Your task to perform on an android device: Open Youtube and go to "Your channel" Image 0: 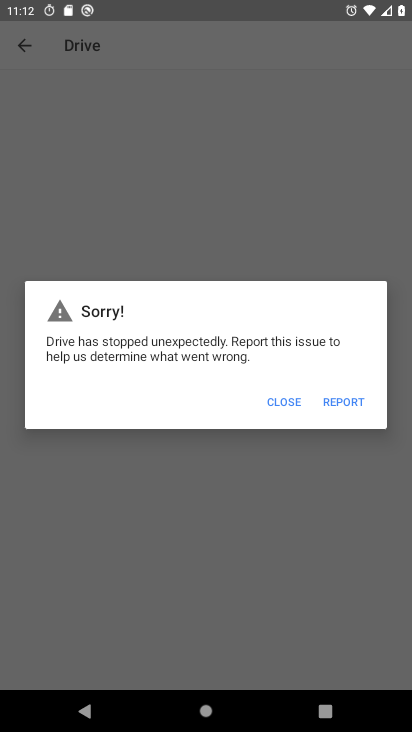
Step 0: click (283, 399)
Your task to perform on an android device: Open Youtube and go to "Your channel" Image 1: 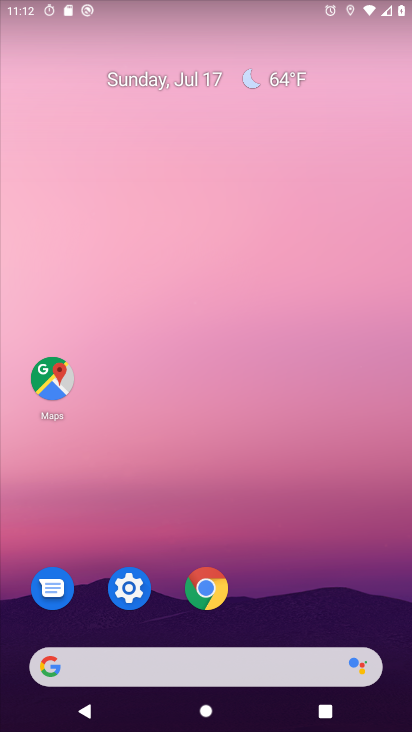
Step 1: drag from (274, 473) to (281, 2)
Your task to perform on an android device: Open Youtube and go to "Your channel" Image 2: 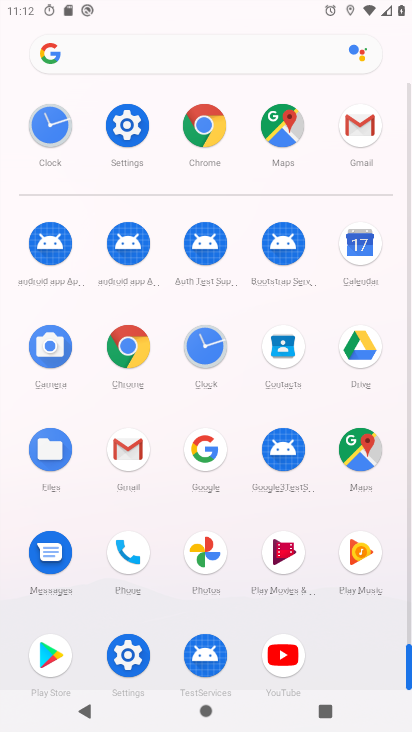
Step 2: click (278, 644)
Your task to perform on an android device: Open Youtube and go to "Your channel" Image 3: 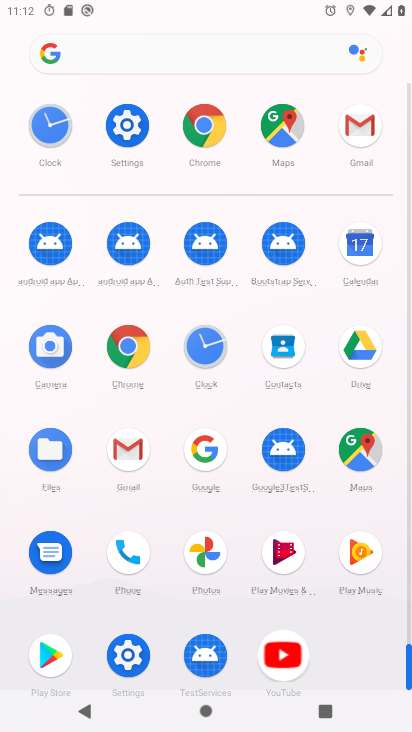
Step 3: click (279, 646)
Your task to perform on an android device: Open Youtube and go to "Your channel" Image 4: 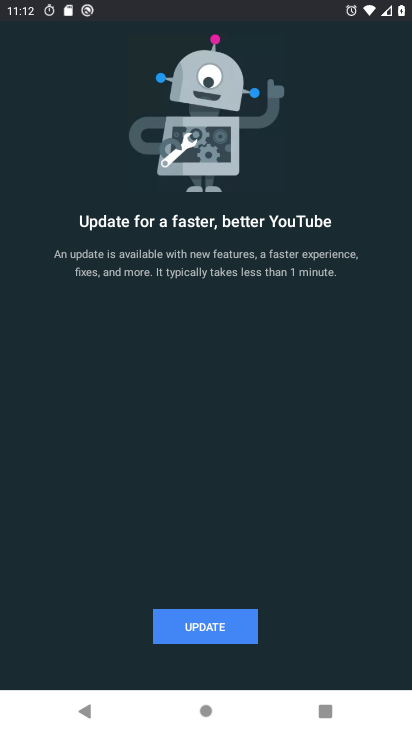
Step 4: click (203, 626)
Your task to perform on an android device: Open Youtube and go to "Your channel" Image 5: 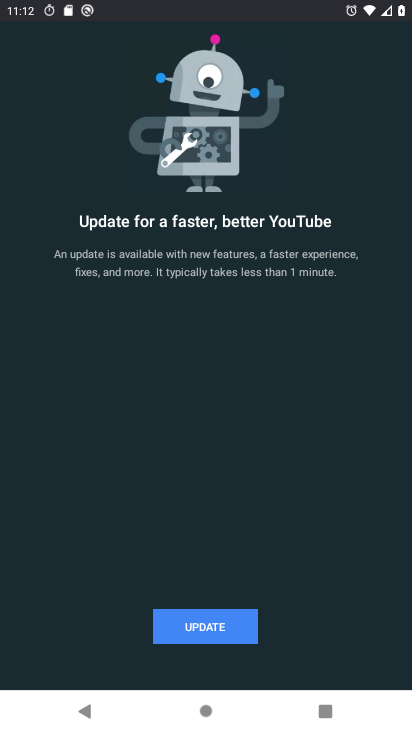
Step 5: click (203, 628)
Your task to perform on an android device: Open Youtube and go to "Your channel" Image 6: 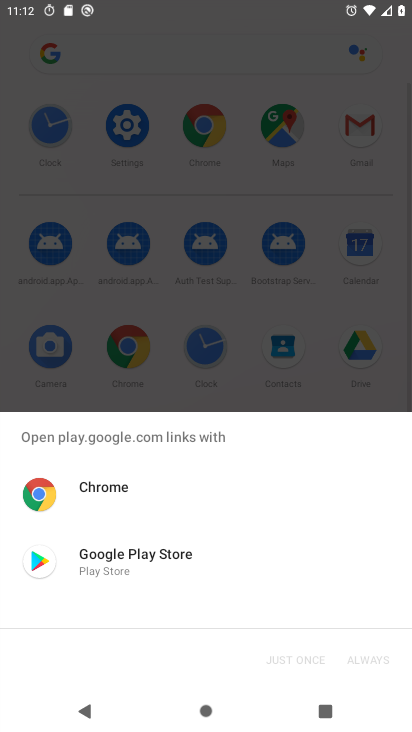
Step 6: click (86, 495)
Your task to perform on an android device: Open Youtube and go to "Your channel" Image 7: 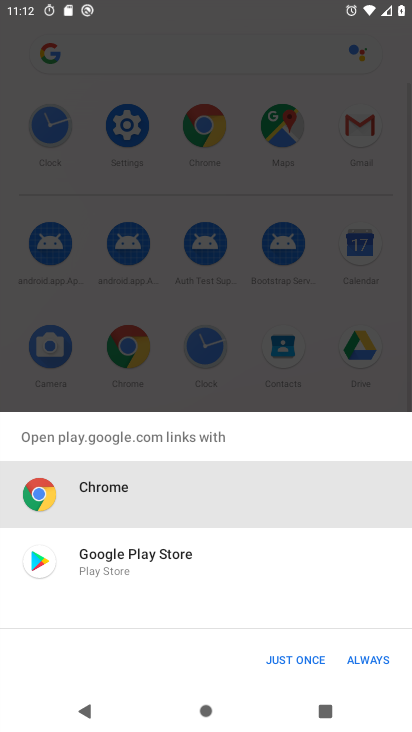
Step 7: click (116, 492)
Your task to perform on an android device: Open Youtube and go to "Your channel" Image 8: 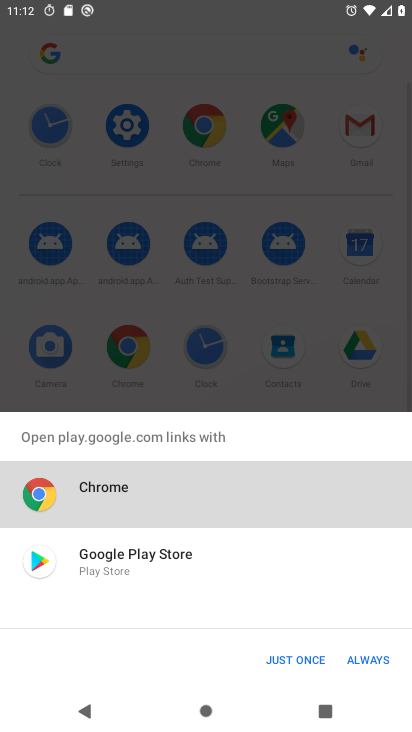
Step 8: click (116, 494)
Your task to perform on an android device: Open Youtube and go to "Your channel" Image 9: 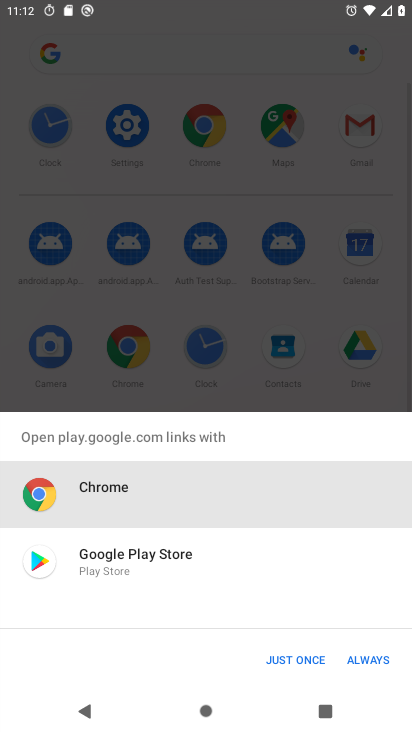
Step 9: click (116, 495)
Your task to perform on an android device: Open Youtube and go to "Your channel" Image 10: 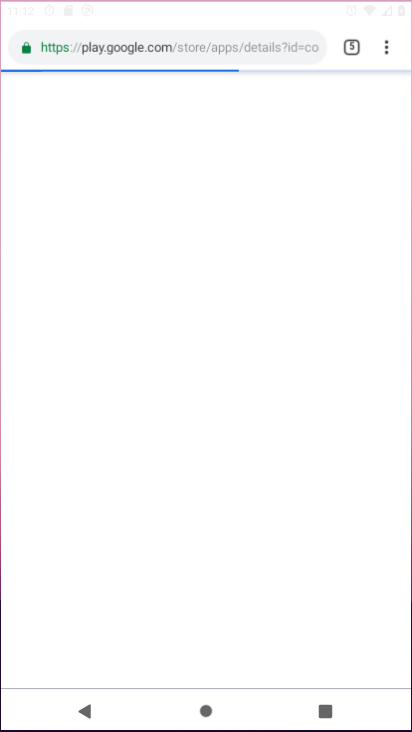
Step 10: click (292, 654)
Your task to perform on an android device: Open Youtube and go to "Your channel" Image 11: 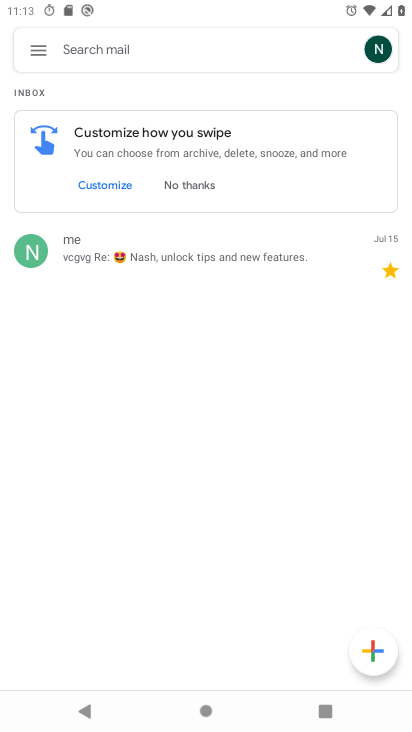
Step 11: press home button
Your task to perform on an android device: Open Youtube and go to "Your channel" Image 12: 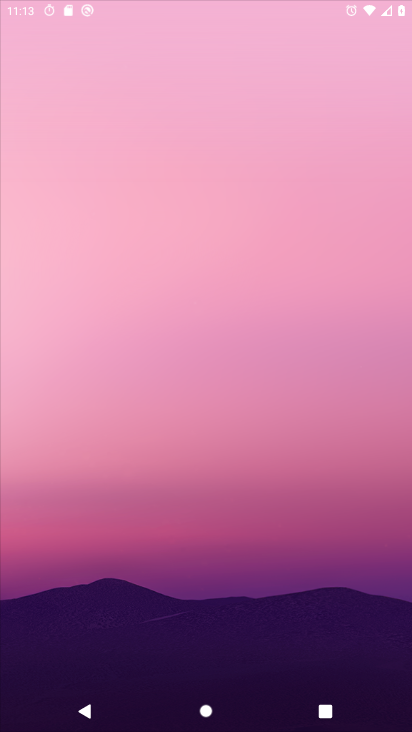
Step 12: drag from (259, 693) to (202, 152)
Your task to perform on an android device: Open Youtube and go to "Your channel" Image 13: 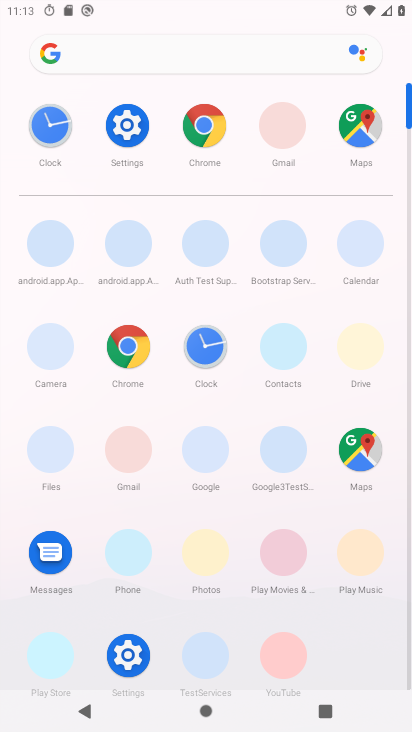
Step 13: drag from (270, 647) to (203, 108)
Your task to perform on an android device: Open Youtube and go to "Your channel" Image 14: 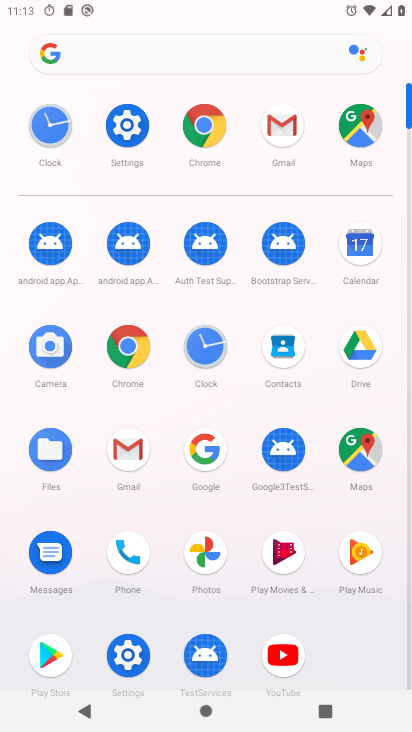
Step 14: click (292, 655)
Your task to perform on an android device: Open Youtube and go to "Your channel" Image 15: 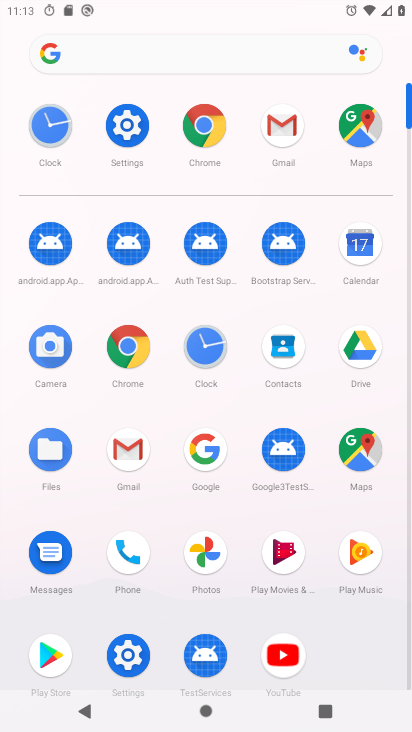
Step 15: click (292, 655)
Your task to perform on an android device: Open Youtube and go to "Your channel" Image 16: 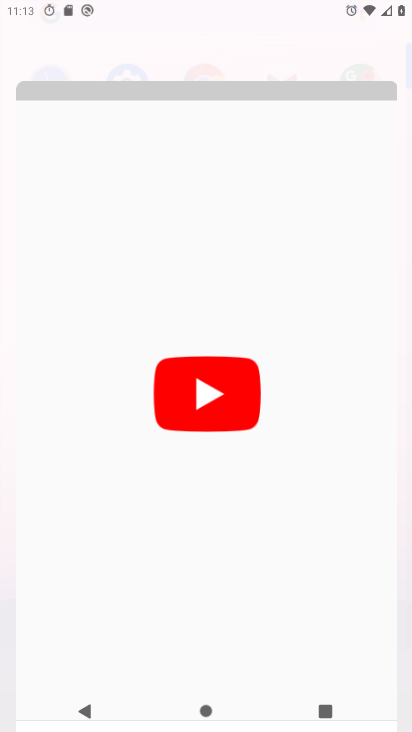
Step 16: click (292, 655)
Your task to perform on an android device: Open Youtube and go to "Your channel" Image 17: 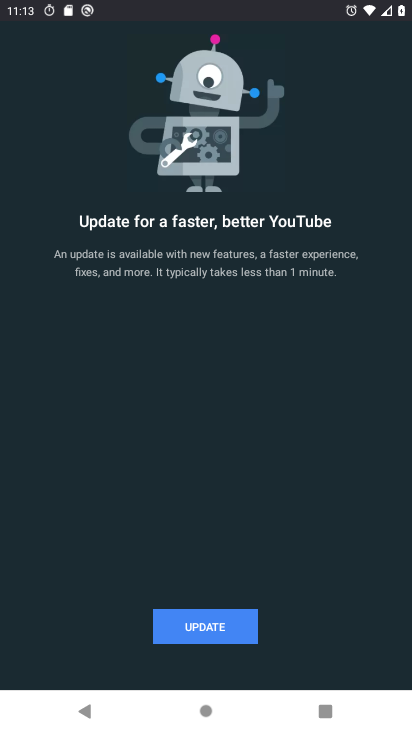
Step 17: click (225, 622)
Your task to perform on an android device: Open Youtube and go to "Your channel" Image 18: 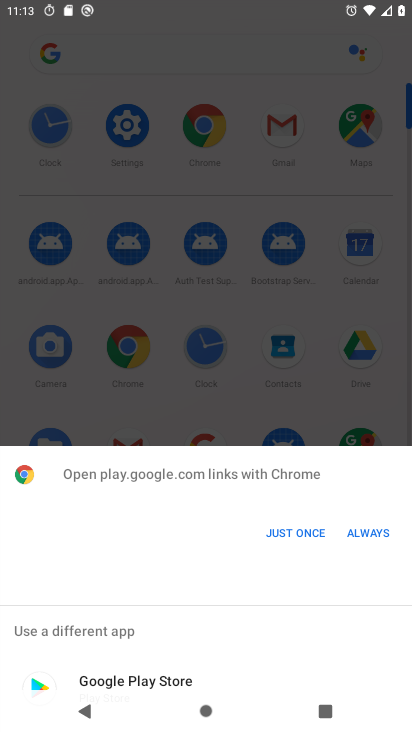
Step 18: click (361, 528)
Your task to perform on an android device: Open Youtube and go to "Your channel" Image 19: 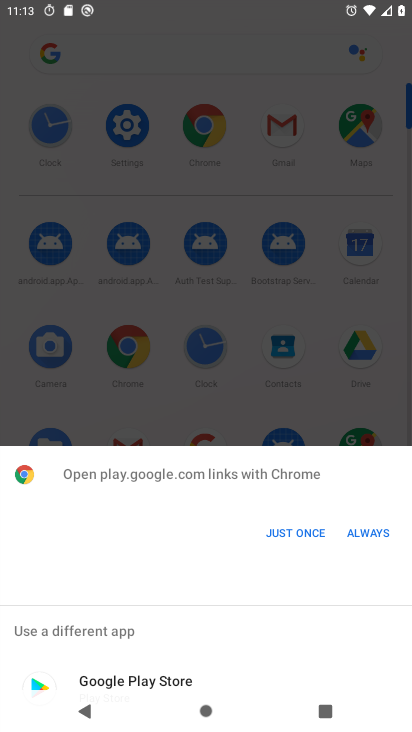
Step 19: click (150, 673)
Your task to perform on an android device: Open Youtube and go to "Your channel" Image 20: 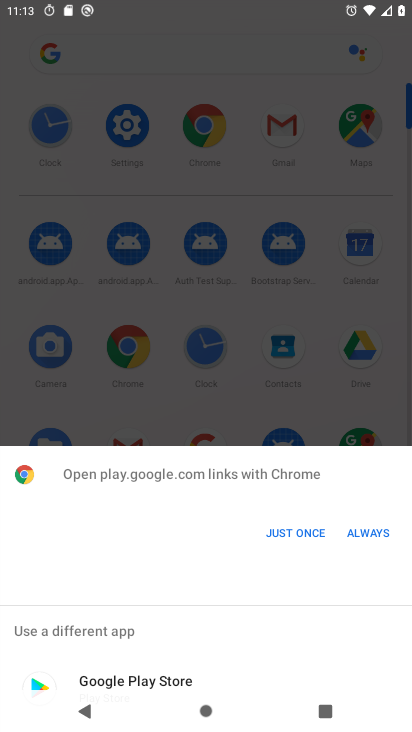
Step 20: click (149, 681)
Your task to perform on an android device: Open Youtube and go to "Your channel" Image 21: 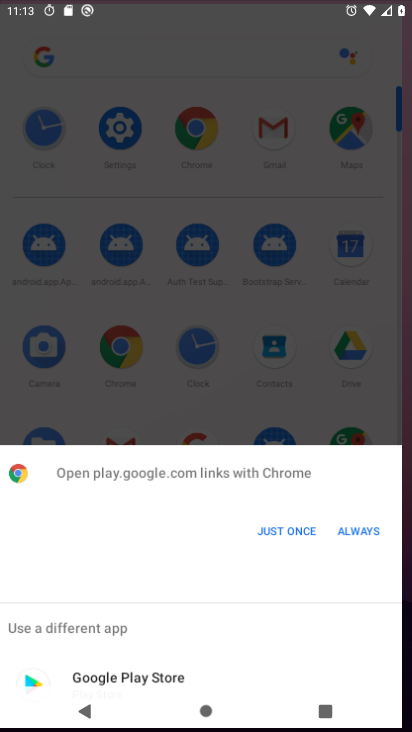
Step 21: click (163, 667)
Your task to perform on an android device: Open Youtube and go to "Your channel" Image 22: 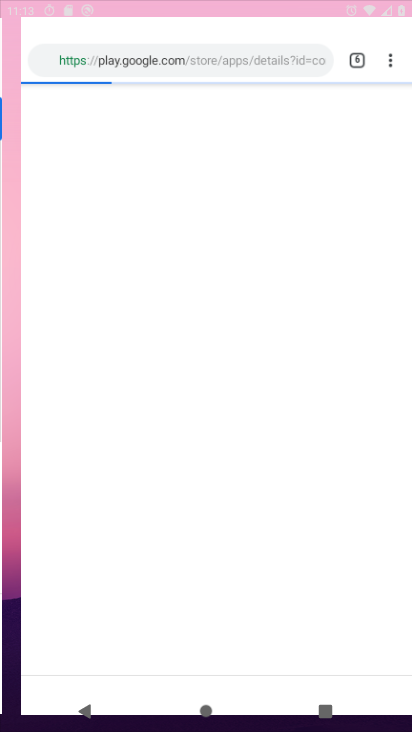
Step 22: click (166, 664)
Your task to perform on an android device: Open Youtube and go to "Your channel" Image 23: 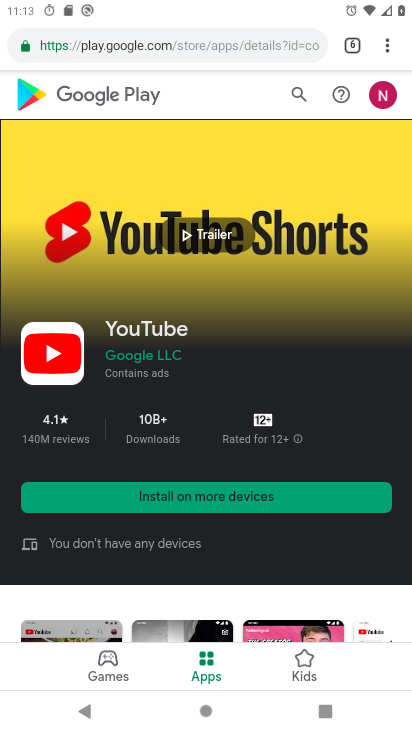
Step 23: task complete